Your task to perform on an android device: What's the weather today? Image 0: 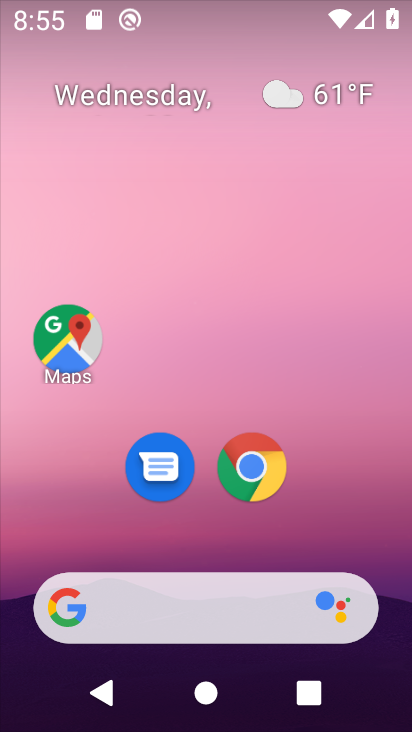
Step 0: drag from (358, 527) to (340, 115)
Your task to perform on an android device: What's the weather today? Image 1: 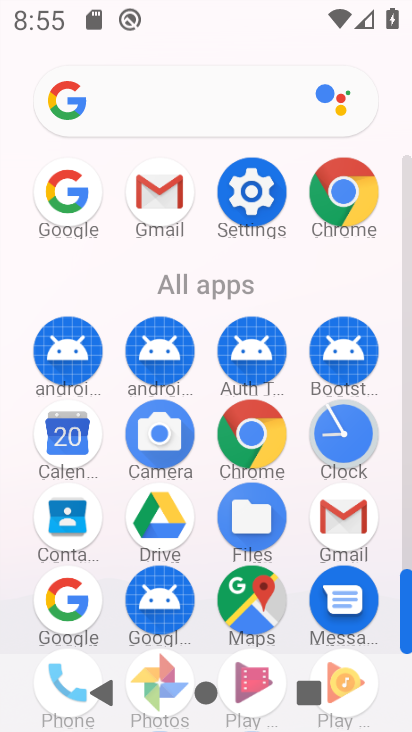
Step 1: press back button
Your task to perform on an android device: What's the weather today? Image 2: 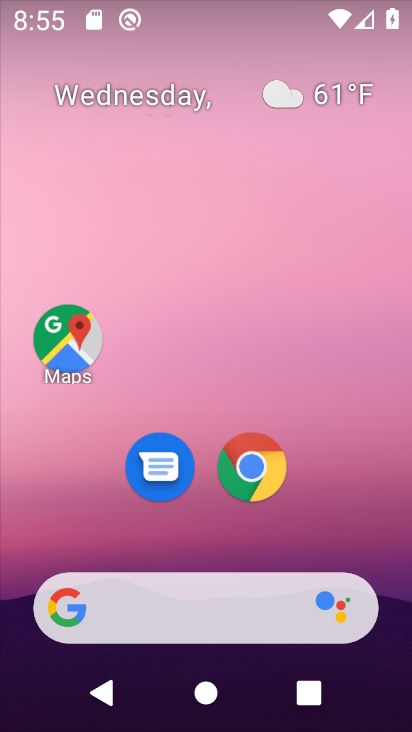
Step 2: drag from (42, 209) to (410, 170)
Your task to perform on an android device: What's the weather today? Image 3: 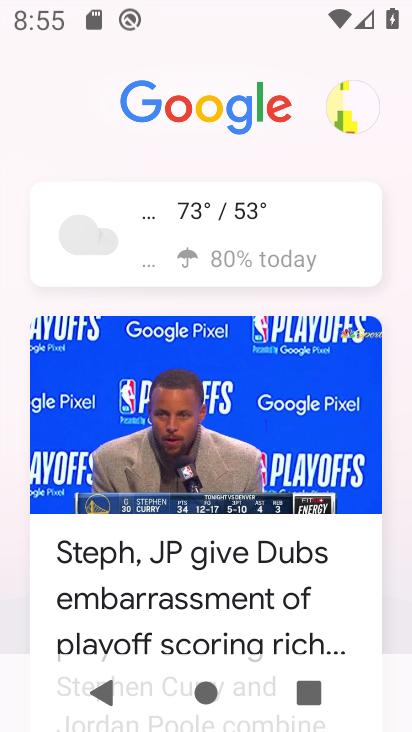
Step 3: click (252, 235)
Your task to perform on an android device: What's the weather today? Image 4: 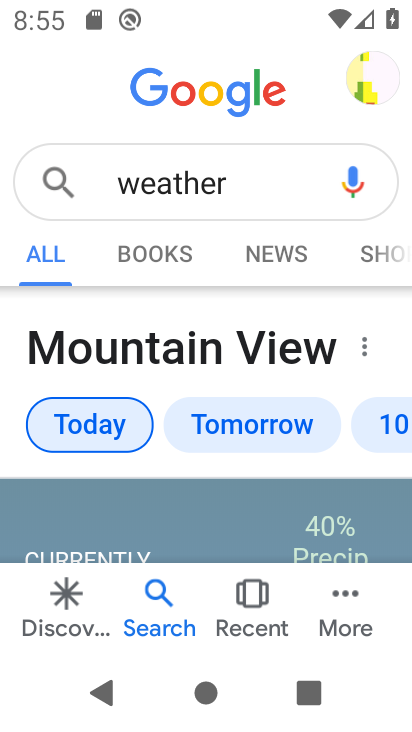
Step 4: task complete